Your task to perform on an android device: set default search engine in the chrome app Image 0: 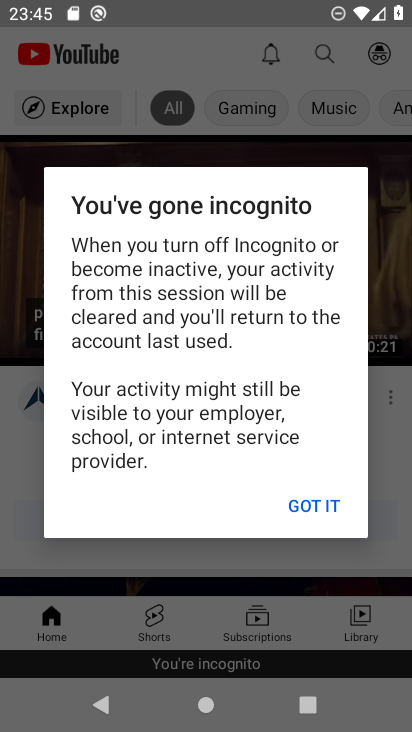
Step 0: press home button
Your task to perform on an android device: set default search engine in the chrome app Image 1: 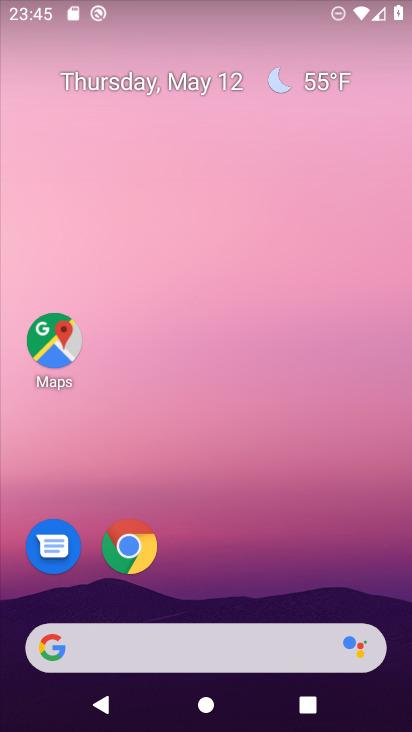
Step 1: click (127, 543)
Your task to perform on an android device: set default search engine in the chrome app Image 2: 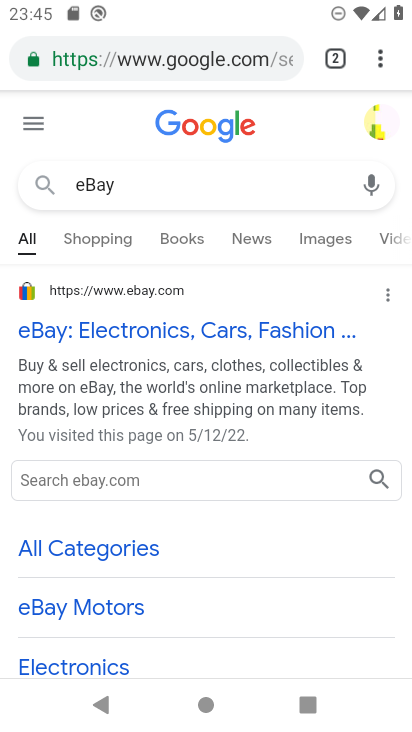
Step 2: click (380, 54)
Your task to perform on an android device: set default search engine in the chrome app Image 3: 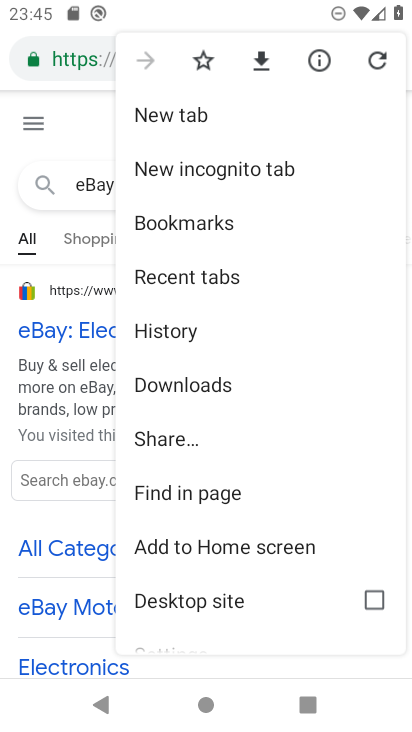
Step 3: drag from (188, 493) to (226, 195)
Your task to perform on an android device: set default search engine in the chrome app Image 4: 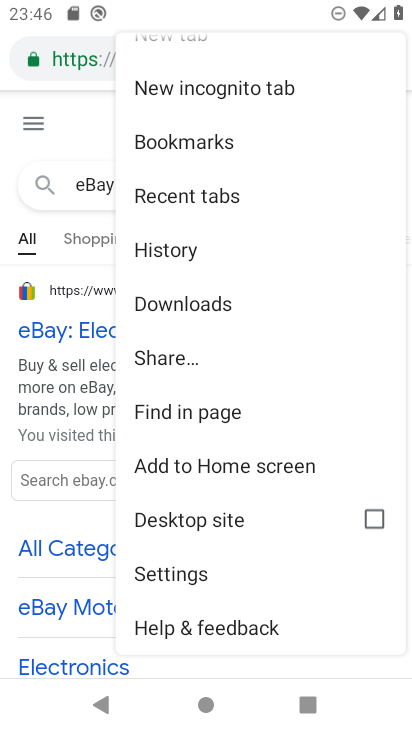
Step 4: click (153, 570)
Your task to perform on an android device: set default search engine in the chrome app Image 5: 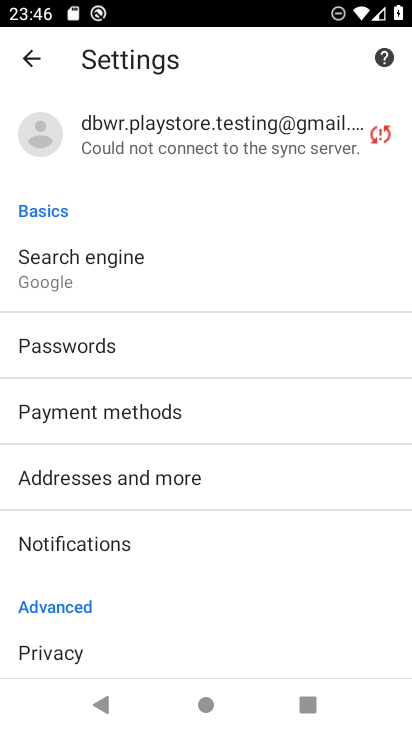
Step 5: click (92, 265)
Your task to perform on an android device: set default search engine in the chrome app Image 6: 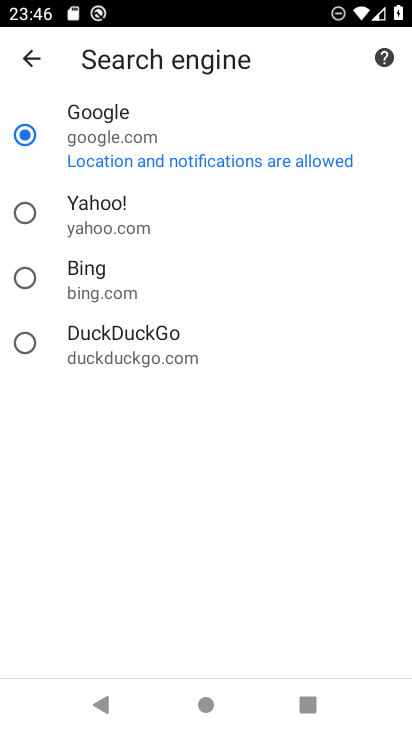
Step 6: task complete